Your task to perform on an android device: turn pop-ups on in chrome Image 0: 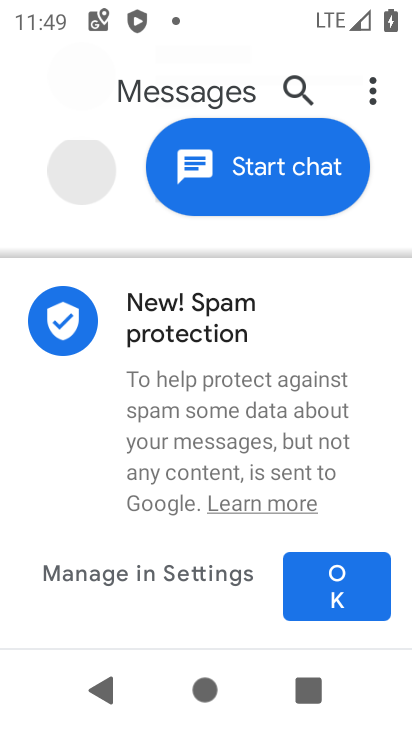
Step 0: press home button
Your task to perform on an android device: turn pop-ups on in chrome Image 1: 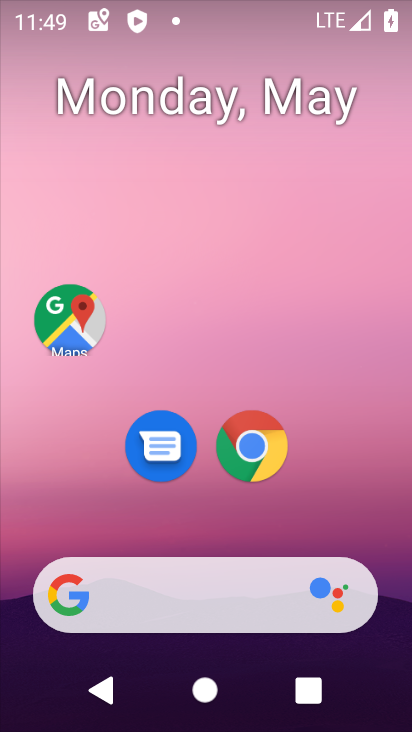
Step 1: drag from (388, 476) to (393, 87)
Your task to perform on an android device: turn pop-ups on in chrome Image 2: 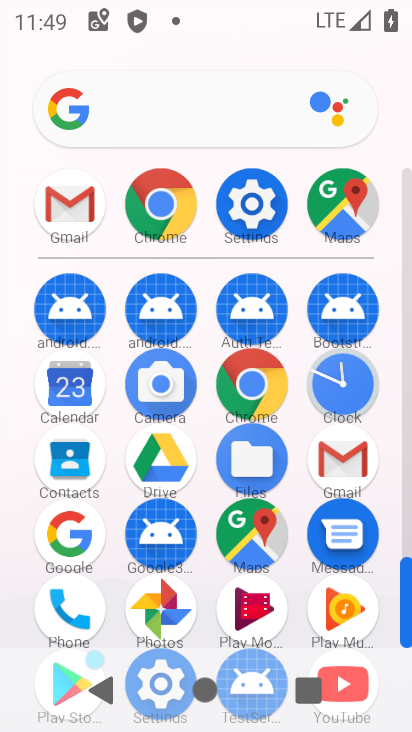
Step 2: click (168, 203)
Your task to perform on an android device: turn pop-ups on in chrome Image 3: 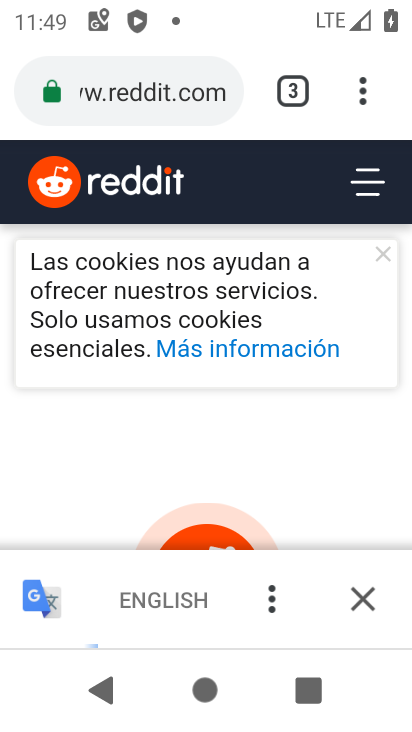
Step 3: drag from (352, 101) to (189, 468)
Your task to perform on an android device: turn pop-ups on in chrome Image 4: 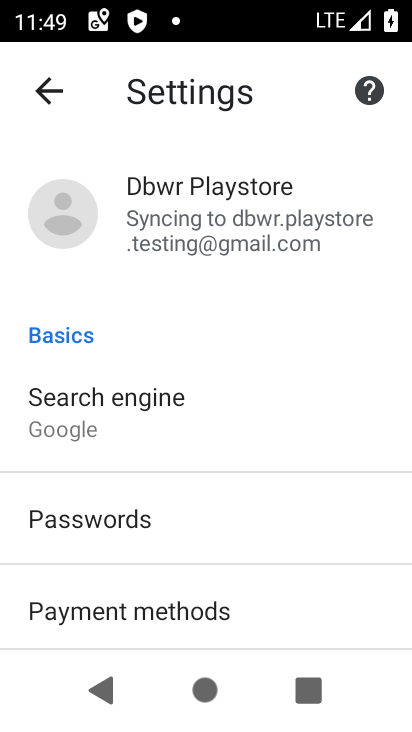
Step 4: drag from (295, 531) to (280, 96)
Your task to perform on an android device: turn pop-ups on in chrome Image 5: 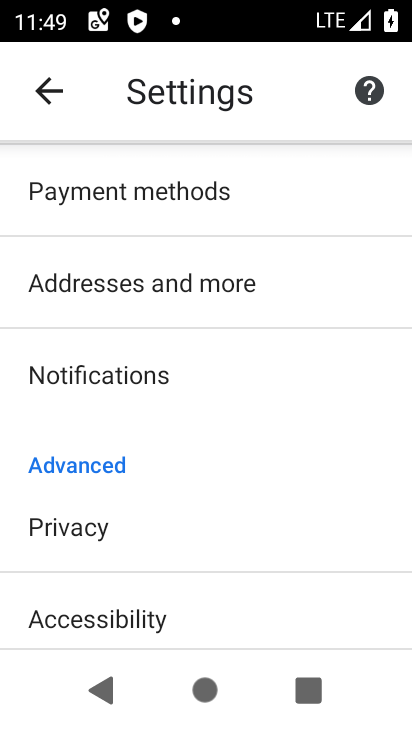
Step 5: drag from (213, 587) to (210, 188)
Your task to perform on an android device: turn pop-ups on in chrome Image 6: 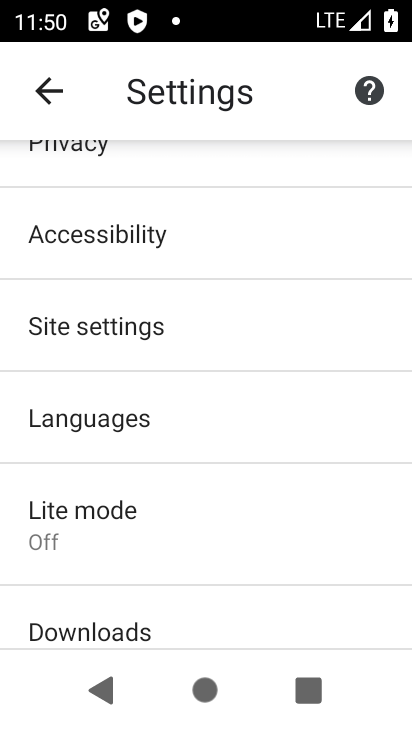
Step 6: drag from (240, 539) to (218, 185)
Your task to perform on an android device: turn pop-ups on in chrome Image 7: 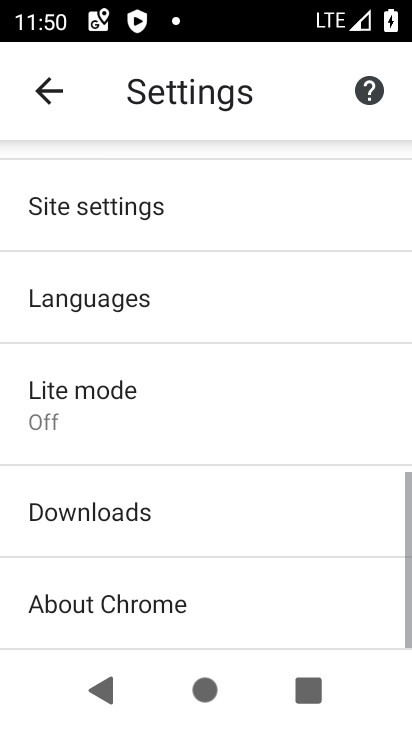
Step 7: drag from (223, 278) to (232, 616)
Your task to perform on an android device: turn pop-ups on in chrome Image 8: 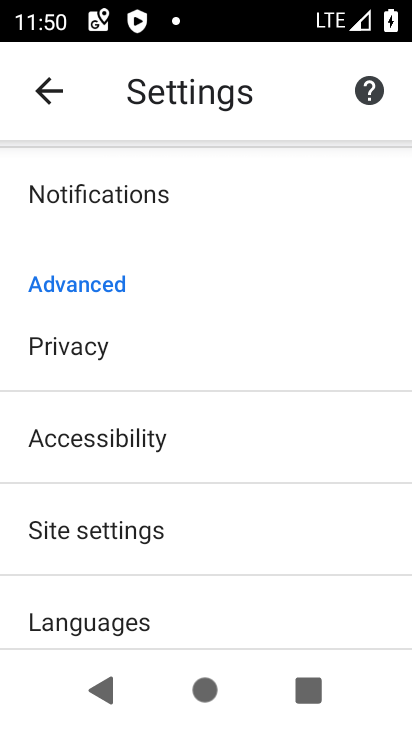
Step 8: click (120, 549)
Your task to perform on an android device: turn pop-ups on in chrome Image 9: 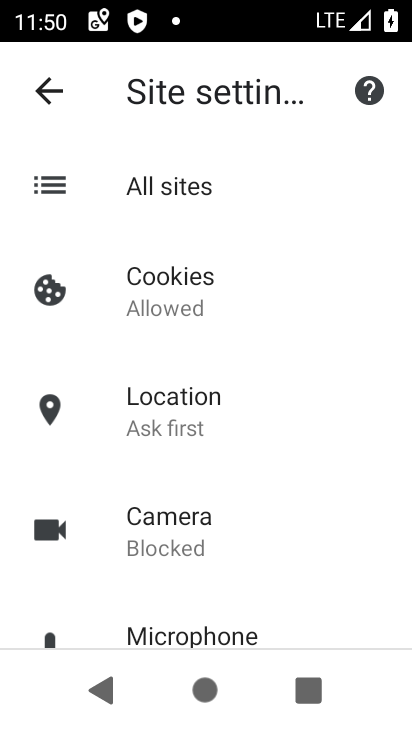
Step 9: drag from (221, 574) to (246, 75)
Your task to perform on an android device: turn pop-ups on in chrome Image 10: 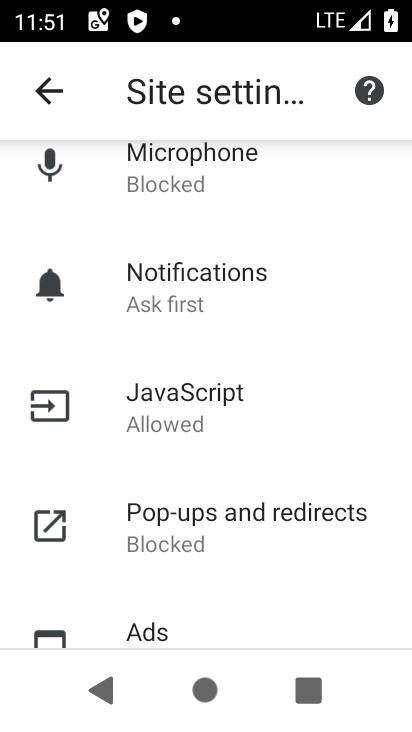
Step 10: click (208, 518)
Your task to perform on an android device: turn pop-ups on in chrome Image 11: 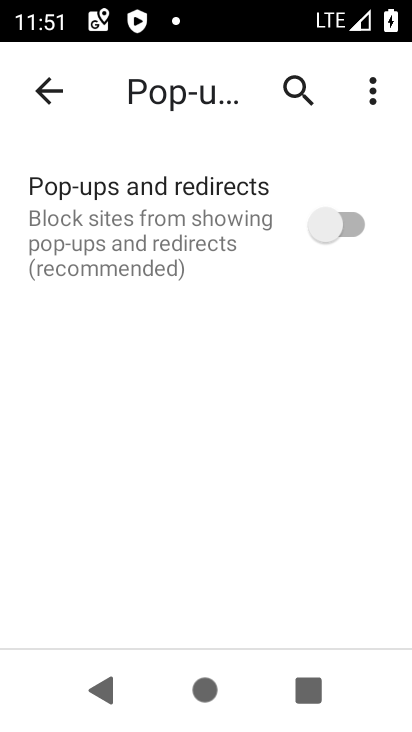
Step 11: click (338, 222)
Your task to perform on an android device: turn pop-ups on in chrome Image 12: 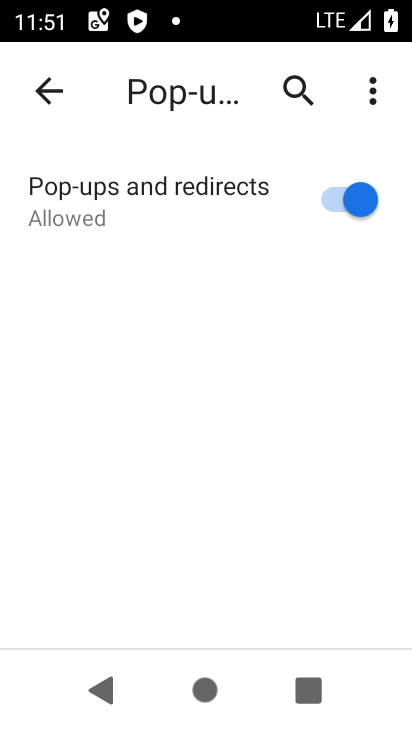
Step 12: task complete